Your task to perform on an android device: check data usage Image 0: 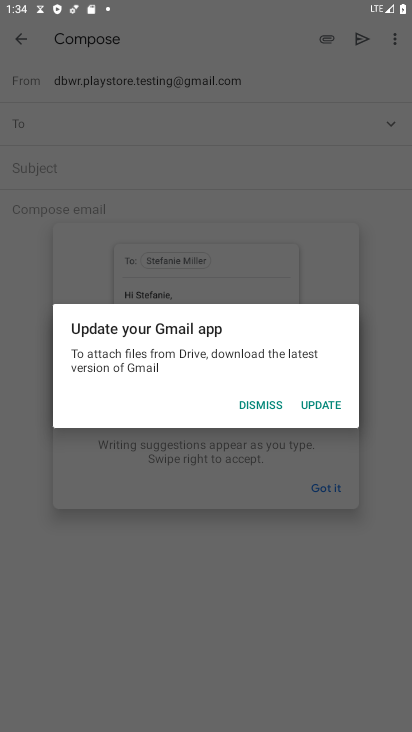
Step 0: press home button
Your task to perform on an android device: check data usage Image 1: 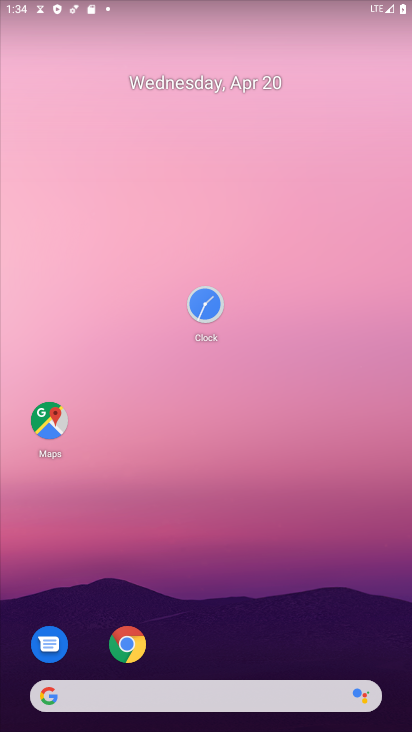
Step 1: drag from (293, 553) to (334, 41)
Your task to perform on an android device: check data usage Image 2: 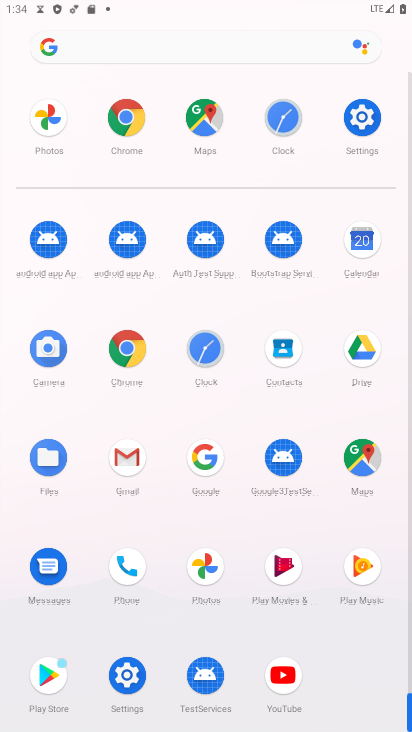
Step 2: click (129, 671)
Your task to perform on an android device: check data usage Image 3: 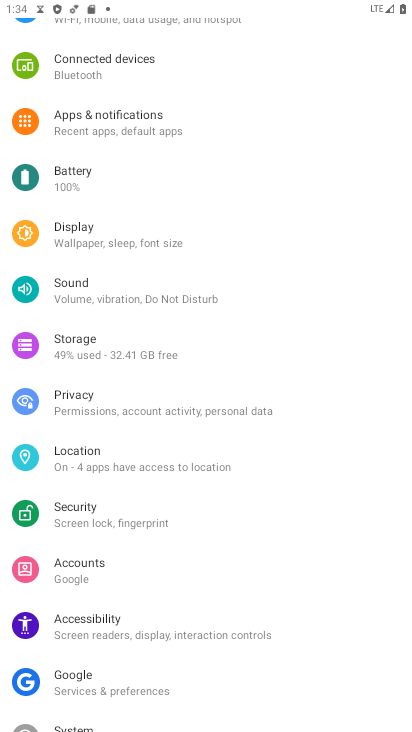
Step 3: drag from (148, 159) to (110, 696)
Your task to perform on an android device: check data usage Image 4: 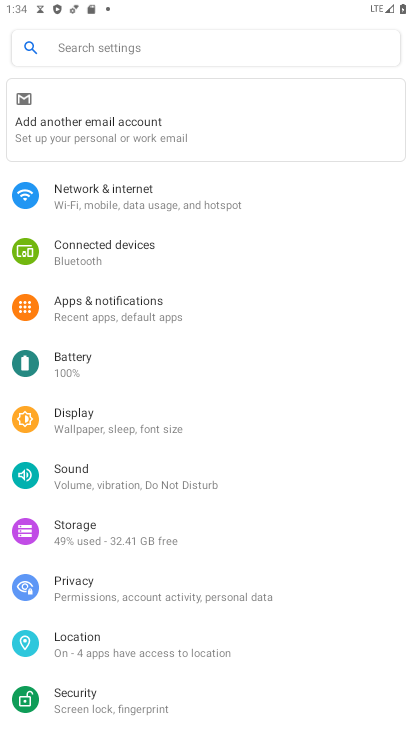
Step 4: click (138, 197)
Your task to perform on an android device: check data usage Image 5: 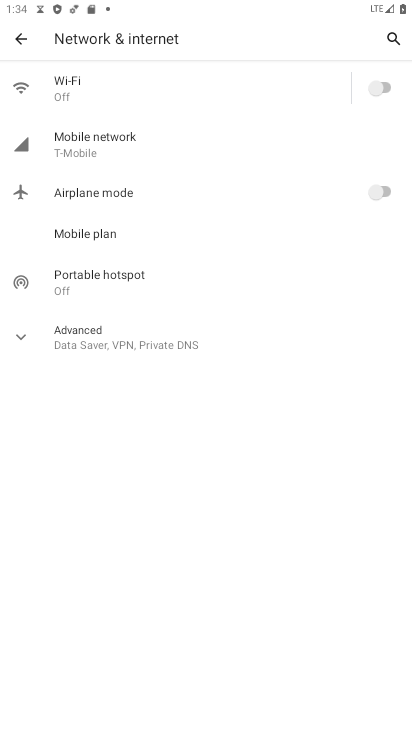
Step 5: click (113, 149)
Your task to perform on an android device: check data usage Image 6: 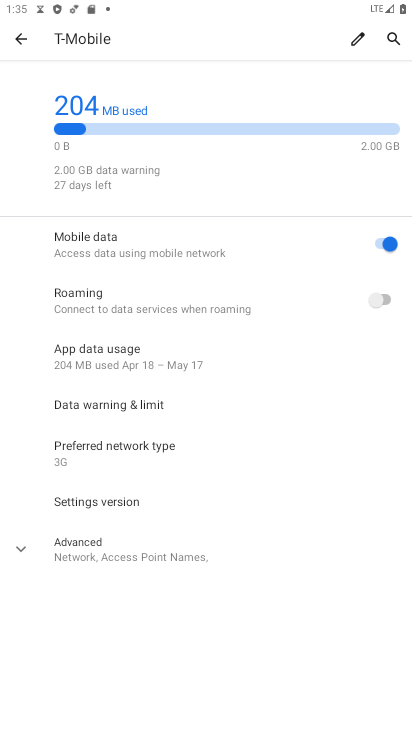
Step 6: click (146, 350)
Your task to perform on an android device: check data usage Image 7: 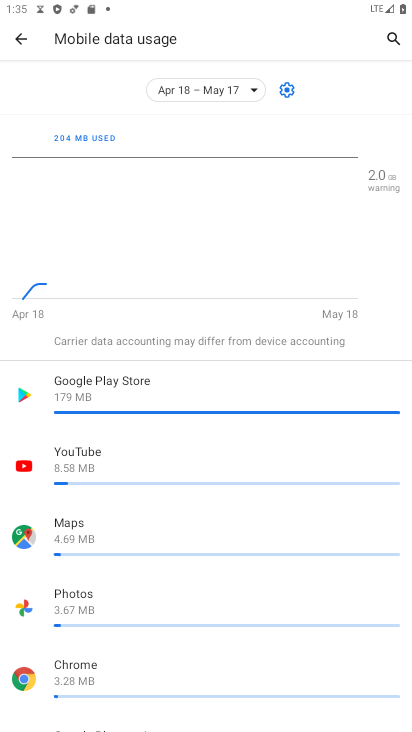
Step 7: task complete